Your task to perform on an android device: What is the recent news? Image 0: 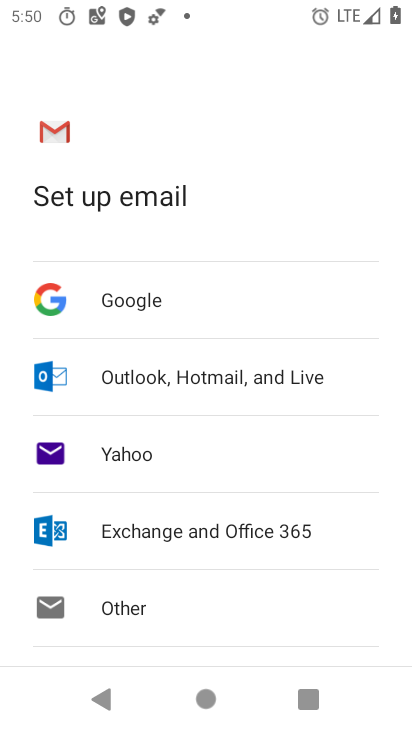
Step 0: press home button
Your task to perform on an android device: What is the recent news? Image 1: 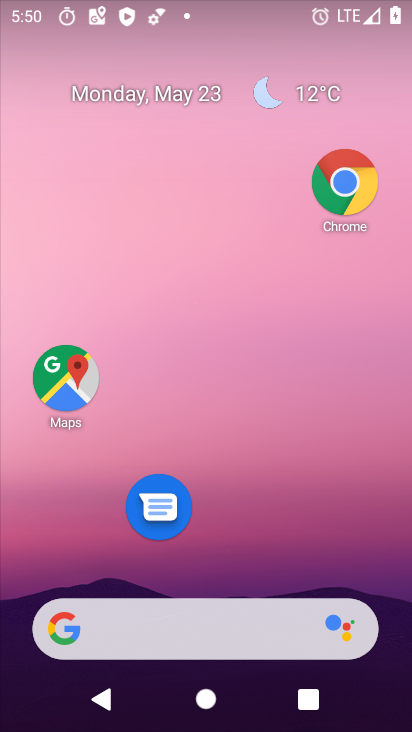
Step 1: click (210, 621)
Your task to perform on an android device: What is the recent news? Image 2: 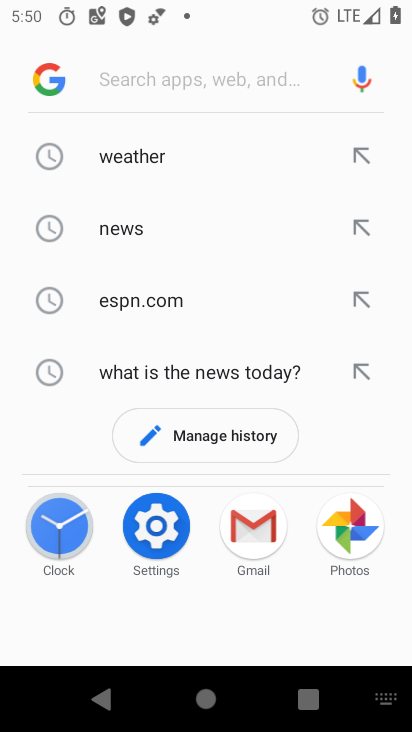
Step 2: click (140, 238)
Your task to perform on an android device: What is the recent news? Image 3: 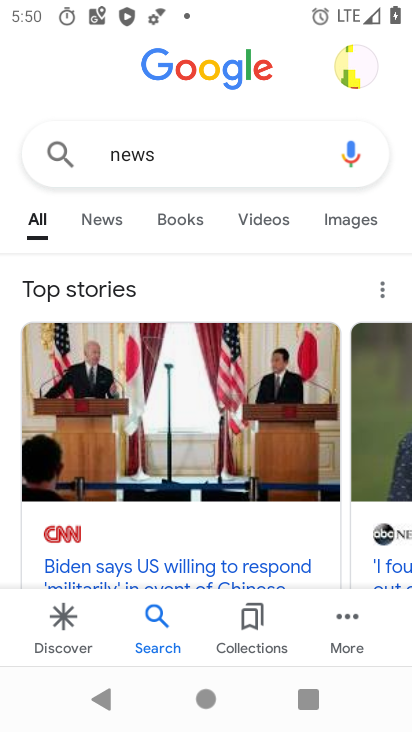
Step 3: task complete